Your task to perform on an android device: Clear the shopping cart on newegg. Search for alienware aurora on newegg, select the first entry, and add it to the cart. Image 0: 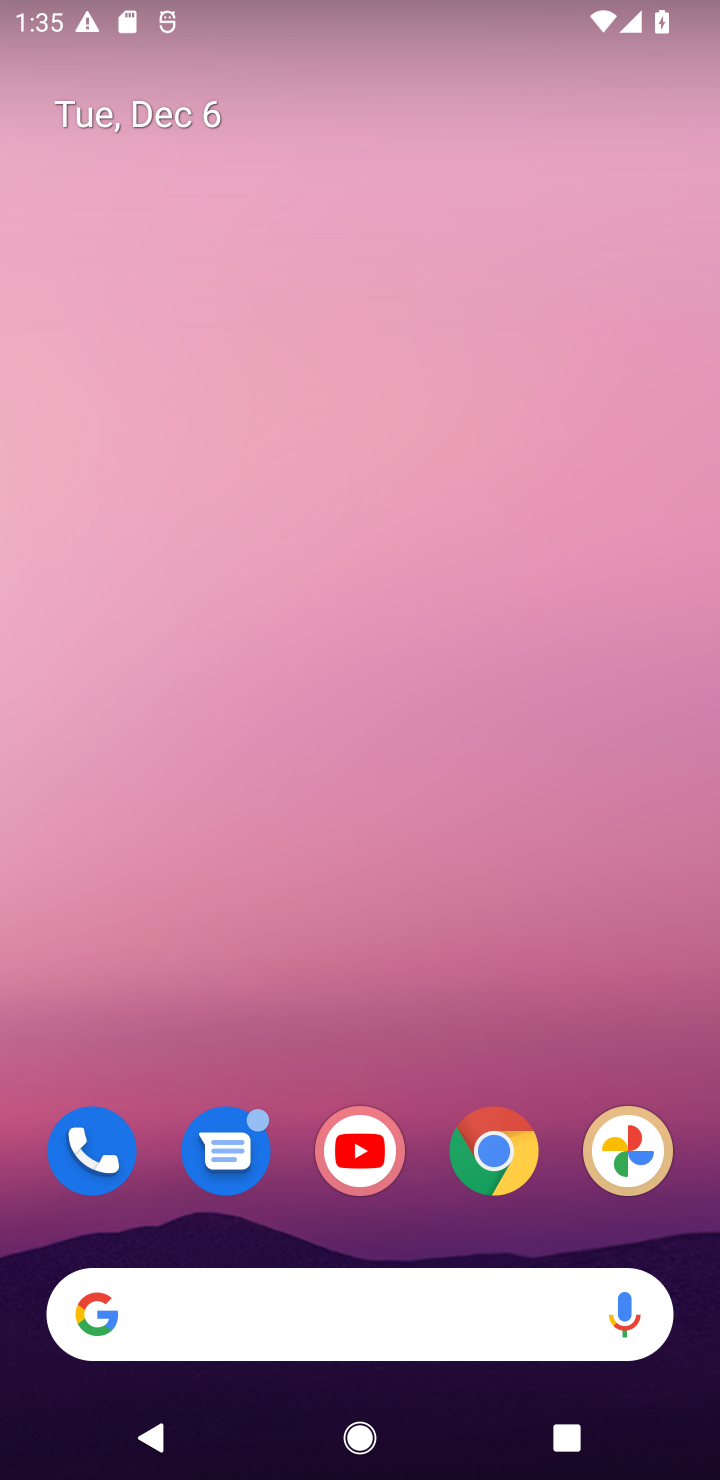
Step 0: click (490, 1162)
Your task to perform on an android device: Clear the shopping cart on newegg. Search for alienware aurora on newegg, select the first entry, and add it to the cart. Image 1: 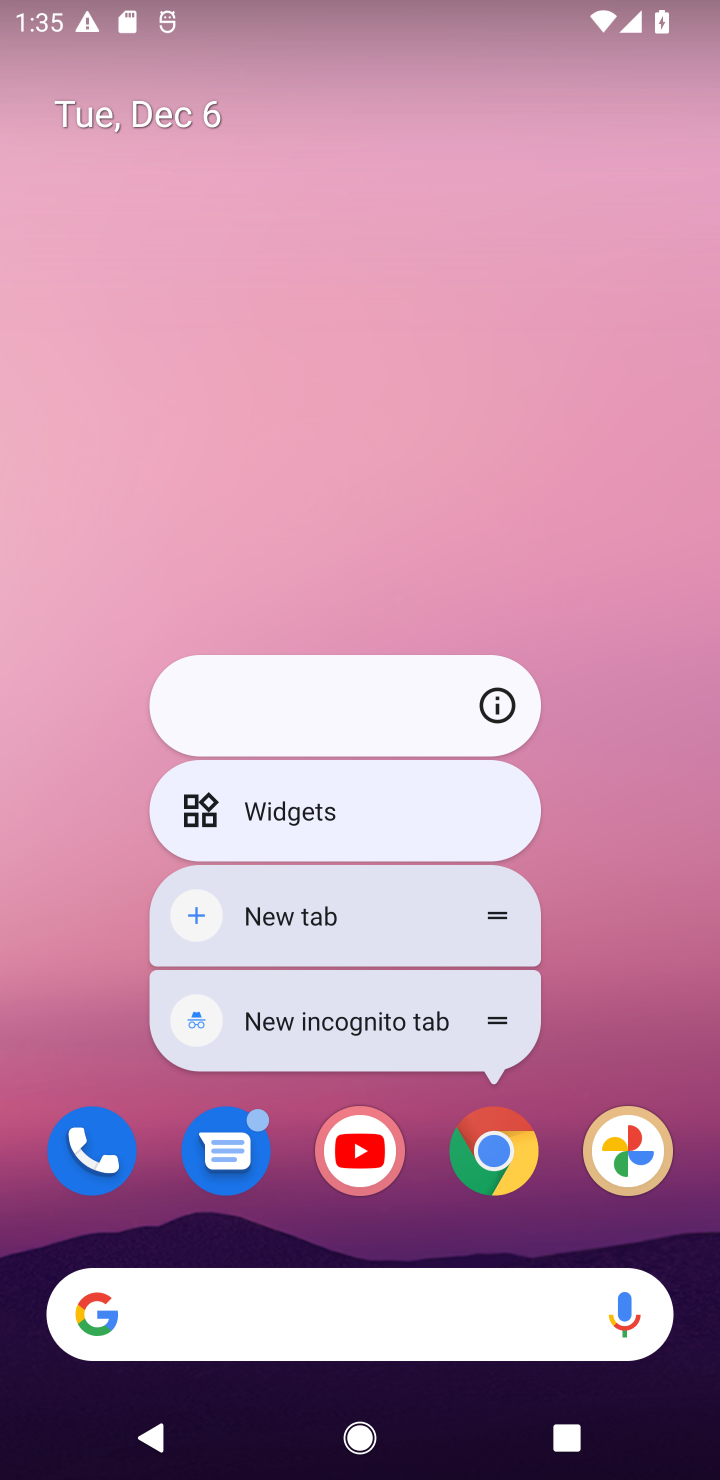
Step 1: click (490, 1162)
Your task to perform on an android device: Clear the shopping cart on newegg. Search for alienware aurora on newegg, select the first entry, and add it to the cart. Image 2: 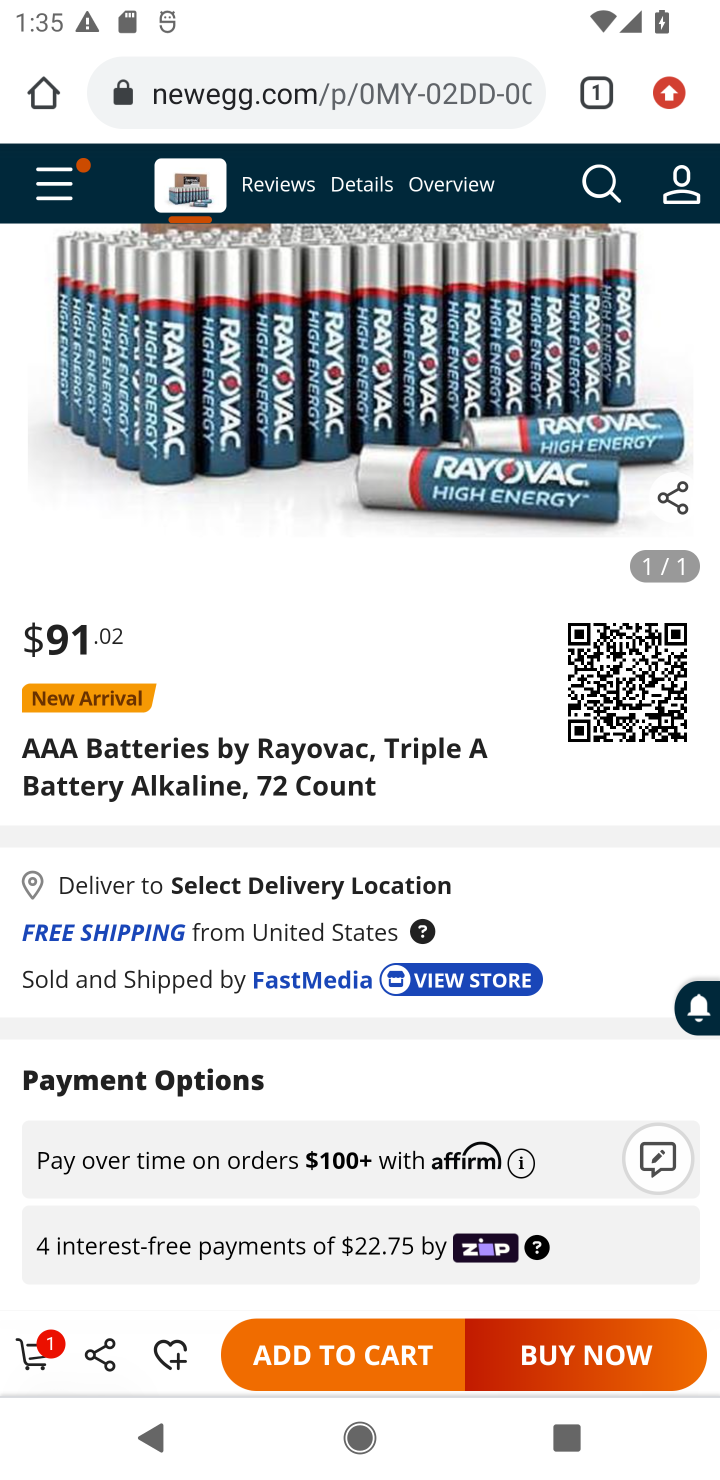
Step 2: click (41, 1356)
Your task to perform on an android device: Clear the shopping cart on newegg. Search for alienware aurora on newegg, select the first entry, and add it to the cart. Image 3: 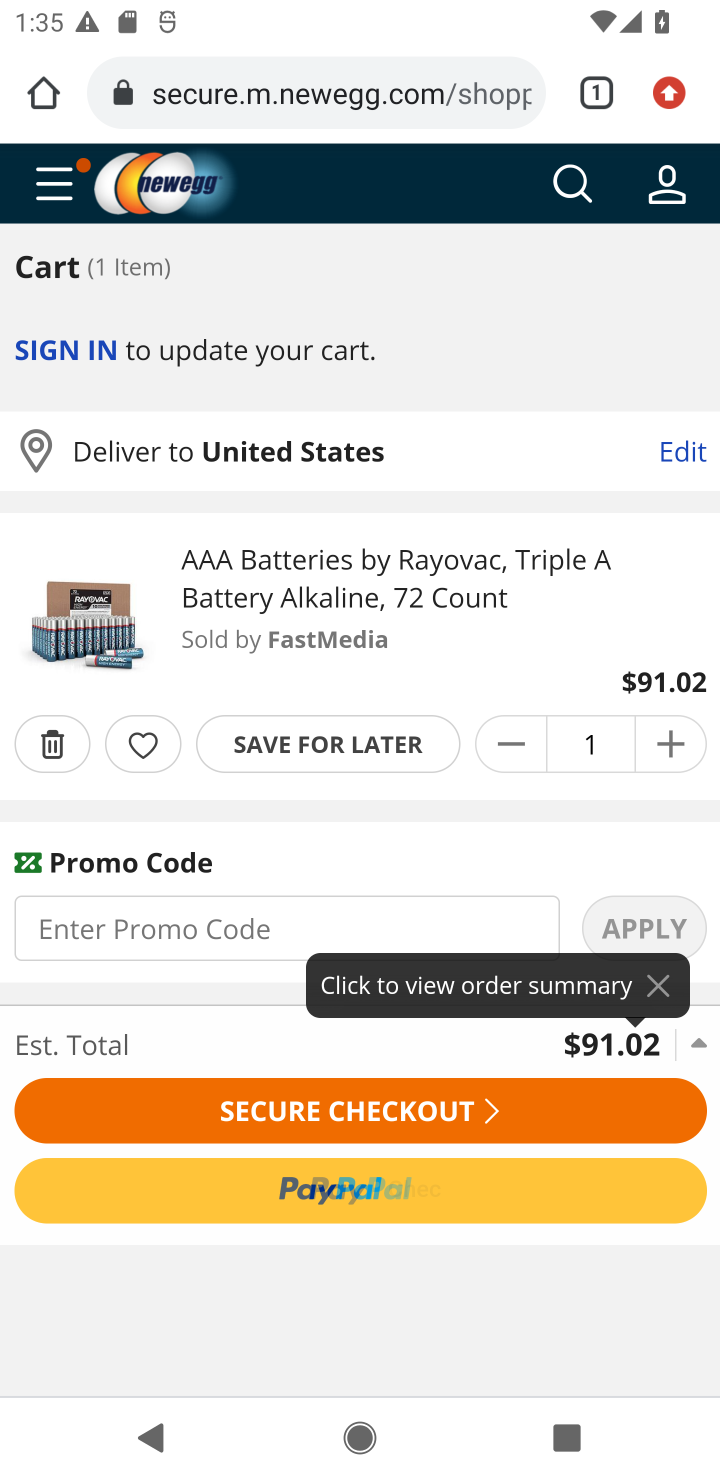
Step 3: click (56, 744)
Your task to perform on an android device: Clear the shopping cart on newegg. Search for alienware aurora on newegg, select the first entry, and add it to the cart. Image 4: 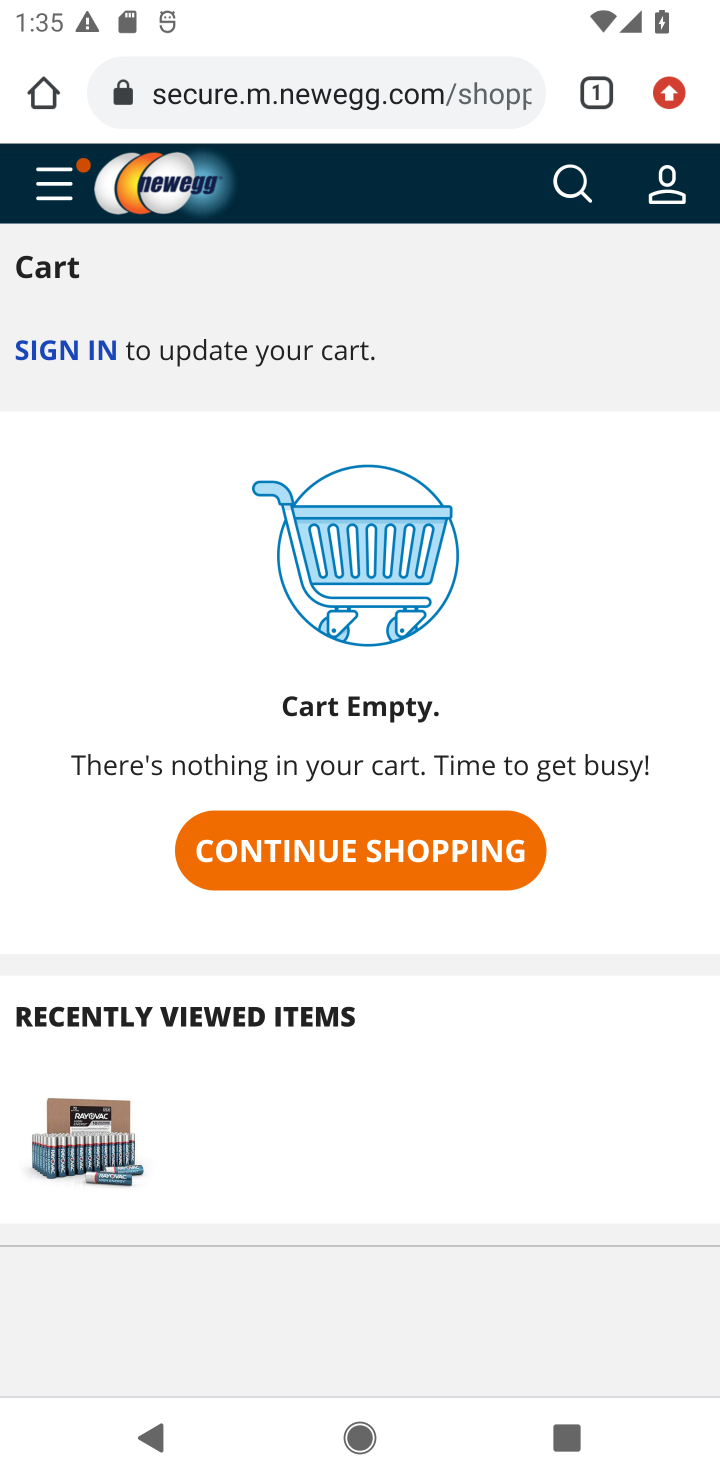
Step 4: click (572, 195)
Your task to perform on an android device: Clear the shopping cart on newegg. Search for alienware aurora on newegg, select the first entry, and add it to the cart. Image 5: 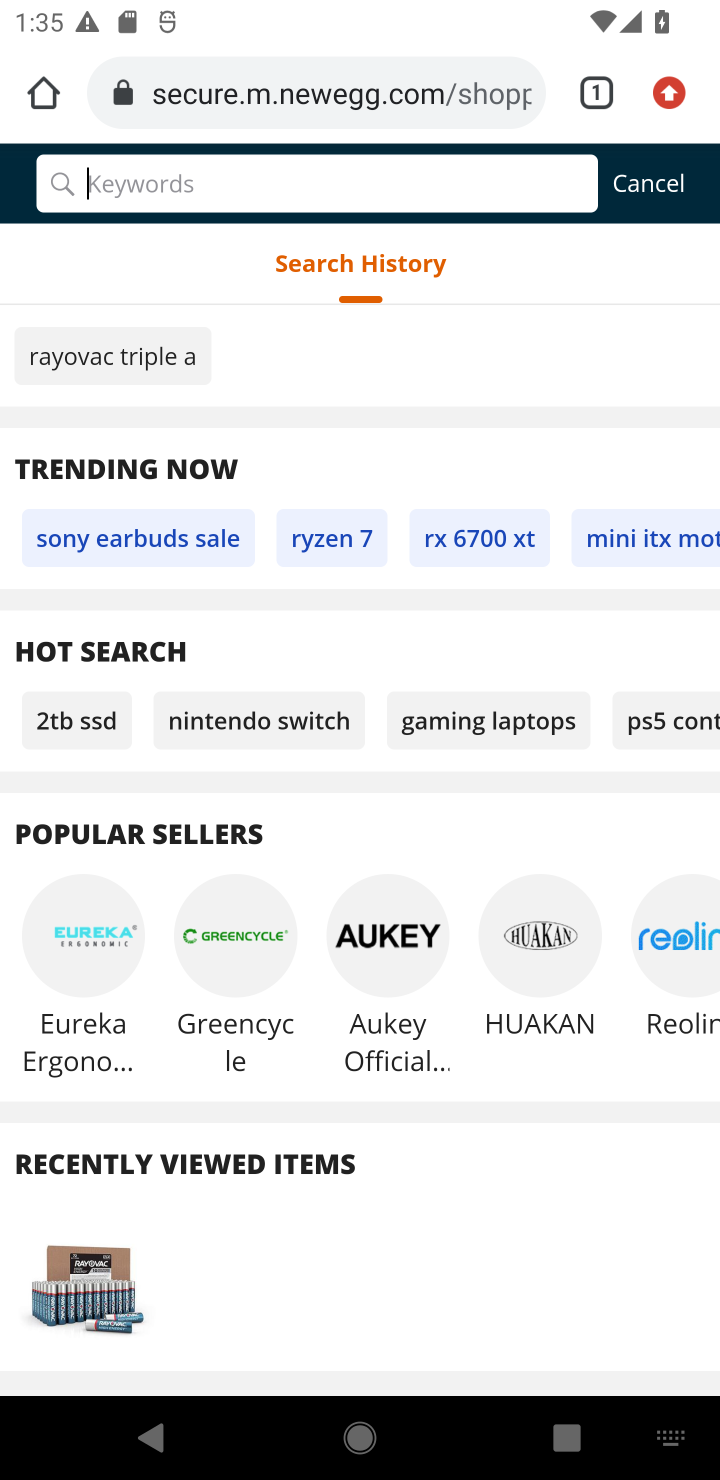
Step 5: type "alienware aurora"
Your task to perform on an android device: Clear the shopping cart on newegg. Search for alienware aurora on newegg, select the first entry, and add it to the cart. Image 6: 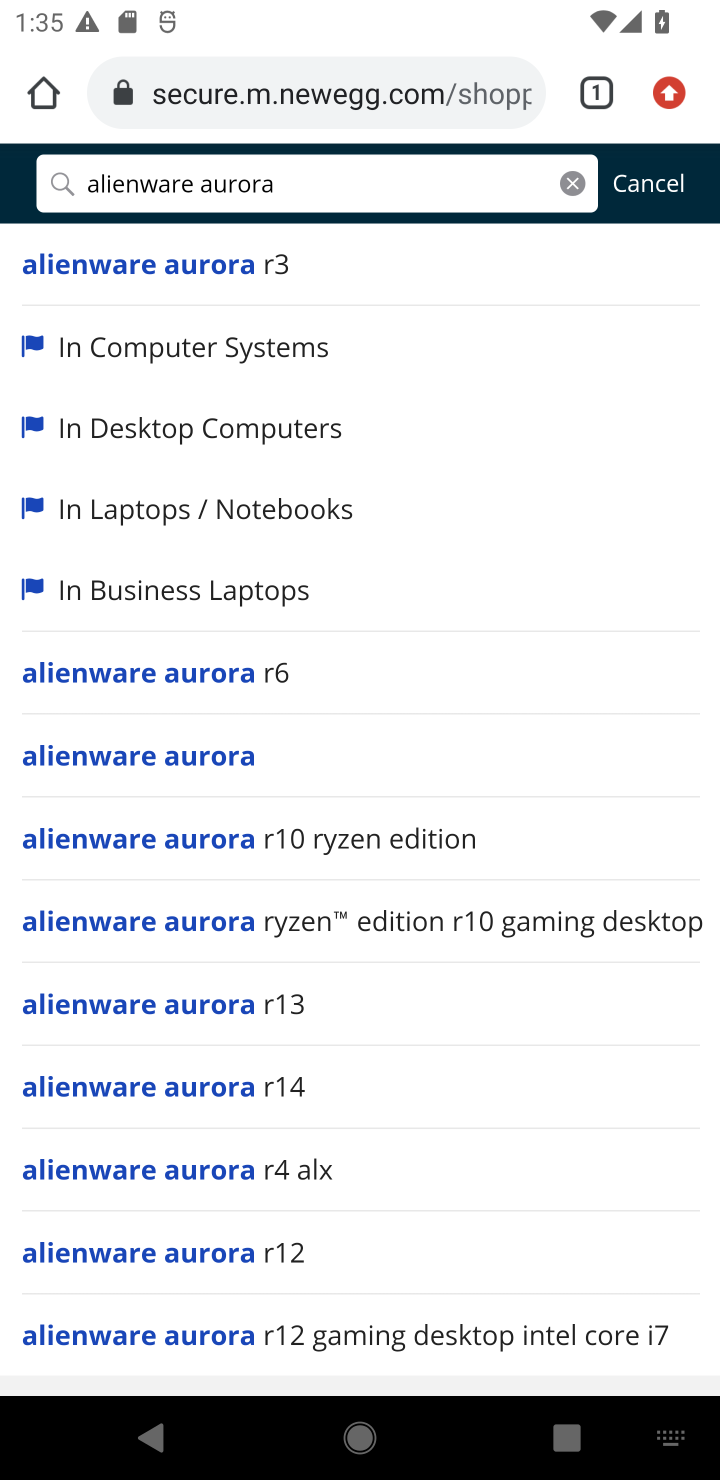
Step 6: click (196, 746)
Your task to perform on an android device: Clear the shopping cart on newegg. Search for alienware aurora on newegg, select the first entry, and add it to the cart. Image 7: 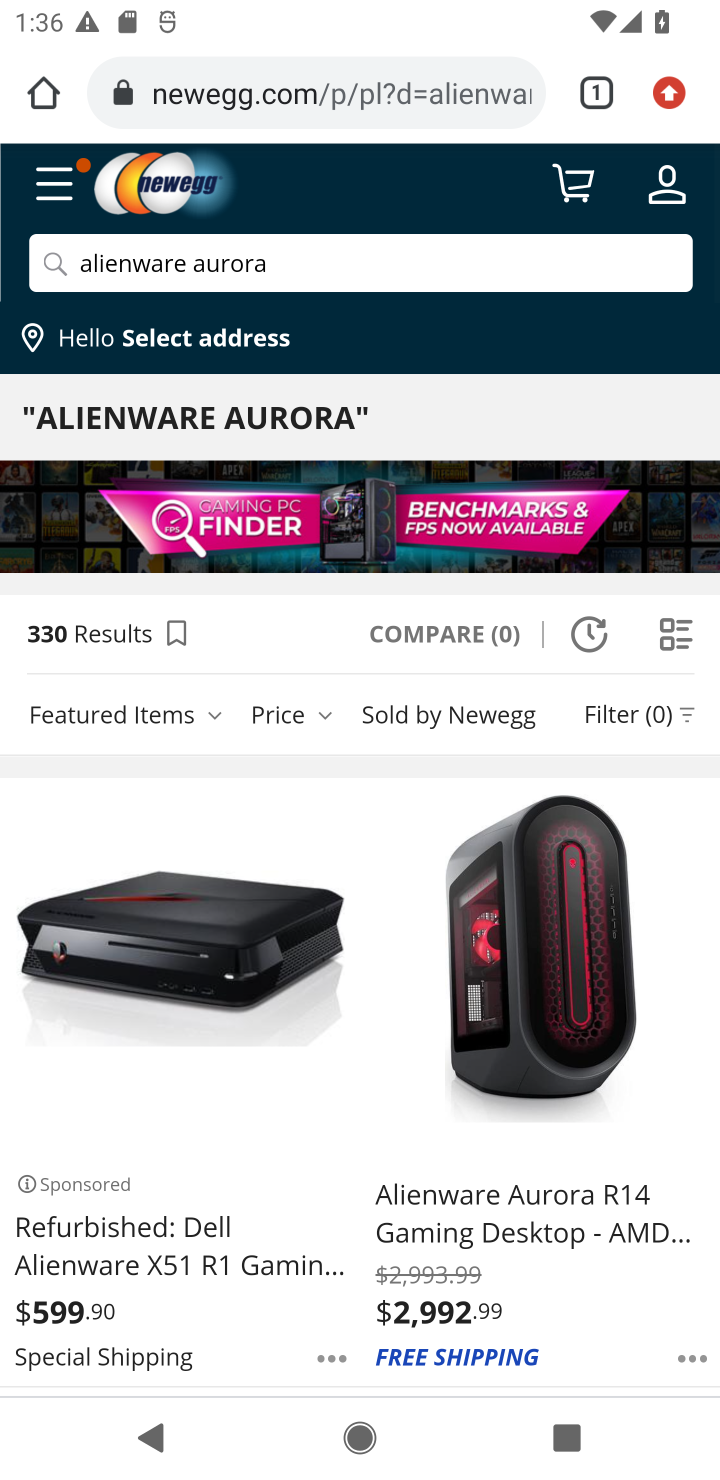
Step 7: task complete